Your task to perform on an android device: turn off sleep mode Image 0: 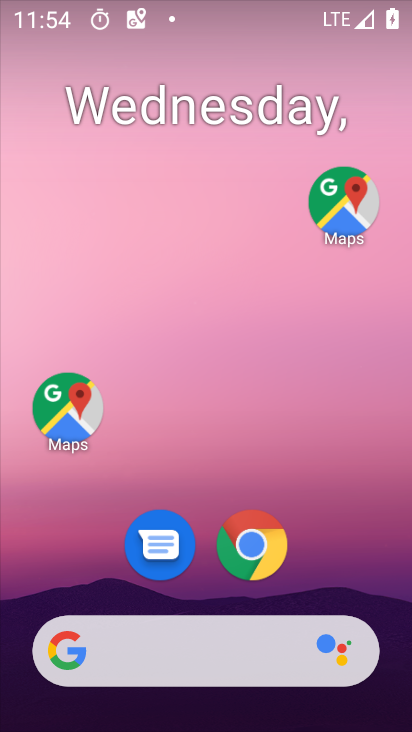
Step 0: drag from (329, 577) to (242, 29)
Your task to perform on an android device: turn off sleep mode Image 1: 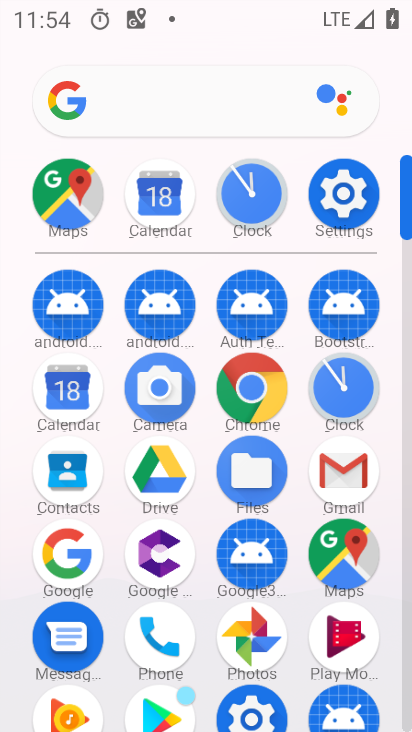
Step 1: click (330, 185)
Your task to perform on an android device: turn off sleep mode Image 2: 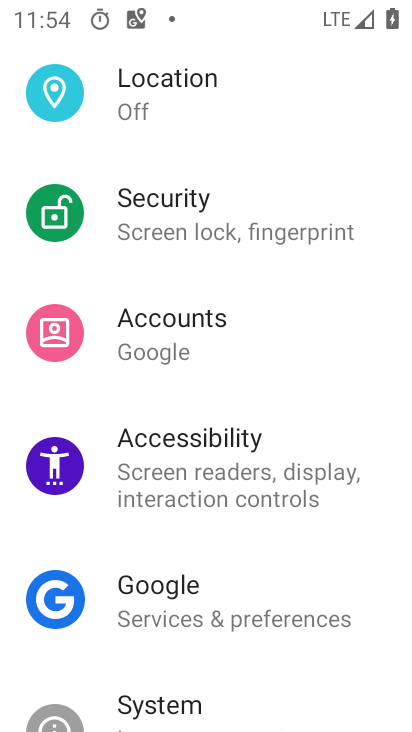
Step 2: drag from (262, 452) to (322, 620)
Your task to perform on an android device: turn off sleep mode Image 3: 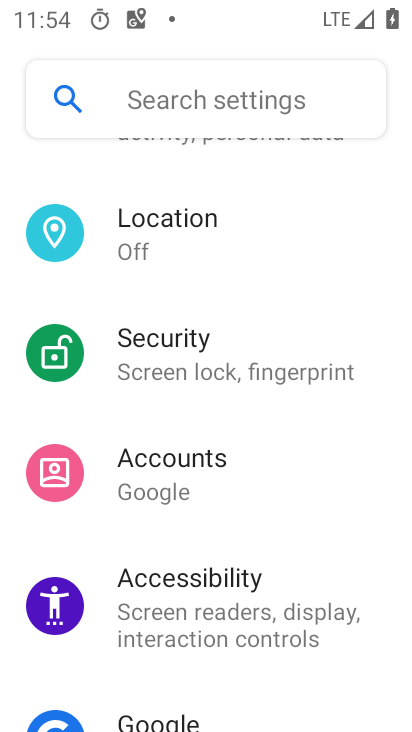
Step 3: drag from (245, 431) to (254, 609)
Your task to perform on an android device: turn off sleep mode Image 4: 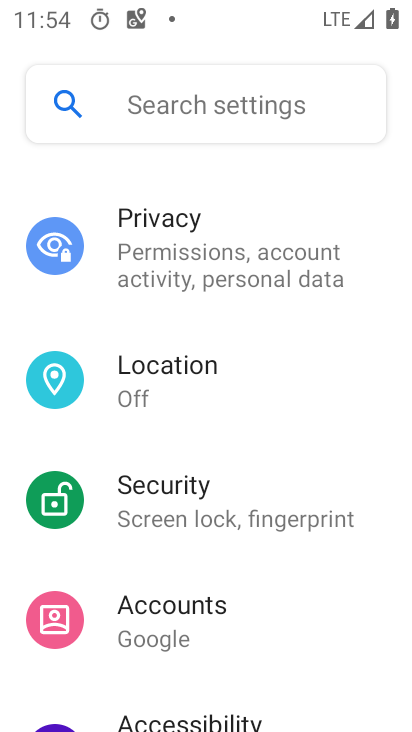
Step 4: drag from (229, 392) to (322, 558)
Your task to perform on an android device: turn off sleep mode Image 5: 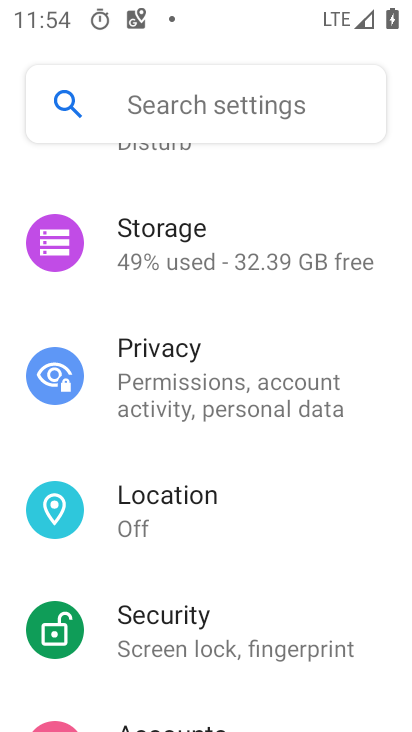
Step 5: drag from (289, 387) to (361, 555)
Your task to perform on an android device: turn off sleep mode Image 6: 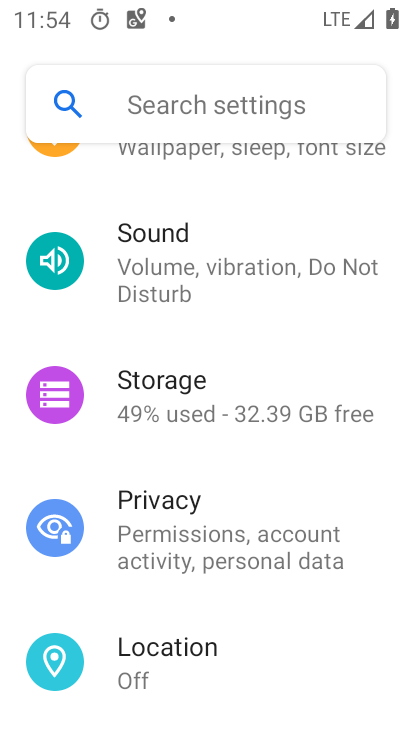
Step 6: drag from (268, 387) to (338, 549)
Your task to perform on an android device: turn off sleep mode Image 7: 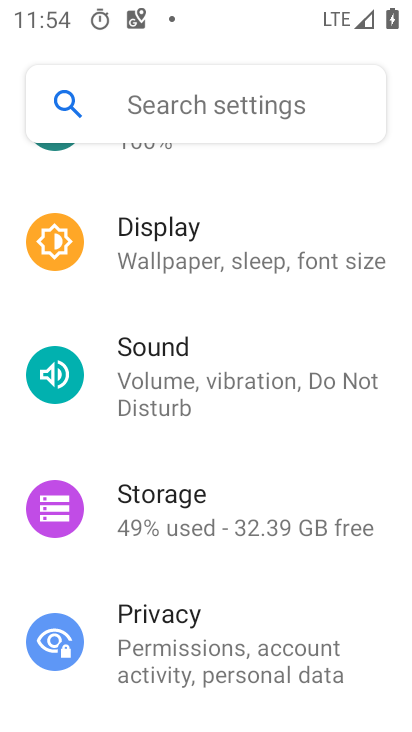
Step 7: drag from (266, 396) to (310, 500)
Your task to perform on an android device: turn off sleep mode Image 8: 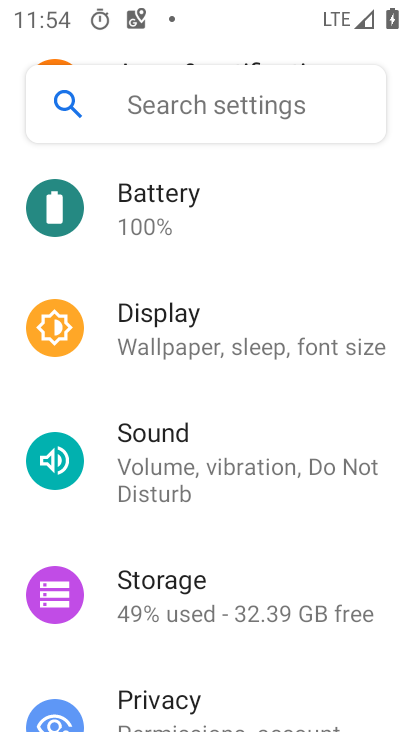
Step 8: drag from (233, 304) to (265, 478)
Your task to perform on an android device: turn off sleep mode Image 9: 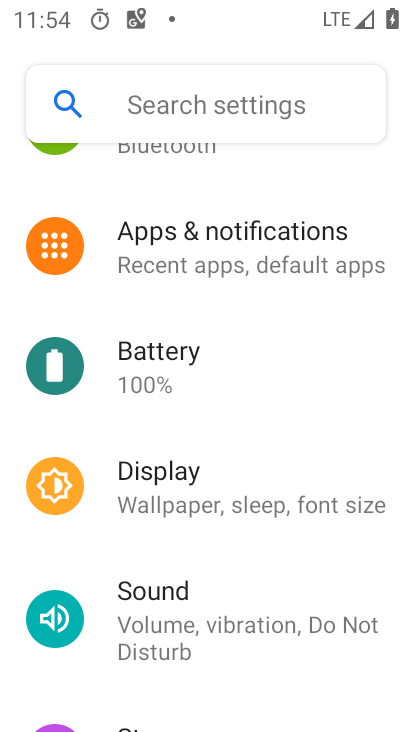
Step 9: click (247, 497)
Your task to perform on an android device: turn off sleep mode Image 10: 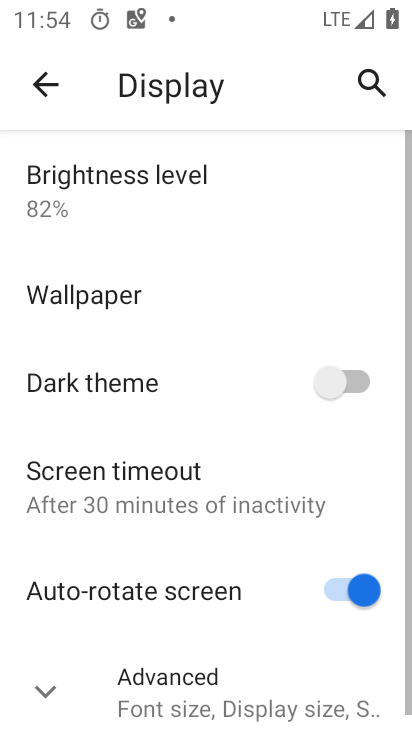
Step 10: drag from (248, 610) to (266, 161)
Your task to perform on an android device: turn off sleep mode Image 11: 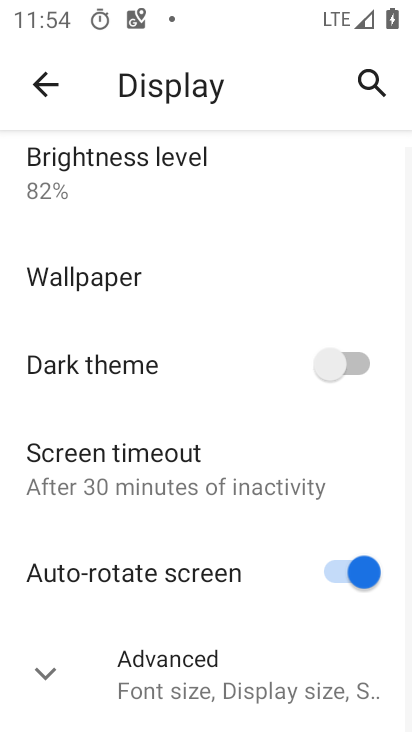
Step 11: click (240, 669)
Your task to perform on an android device: turn off sleep mode Image 12: 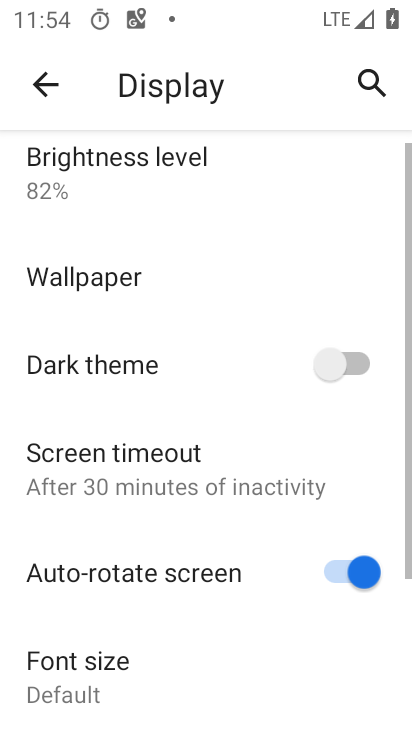
Step 12: task complete